Your task to perform on an android device: What's on my calendar tomorrow? Image 0: 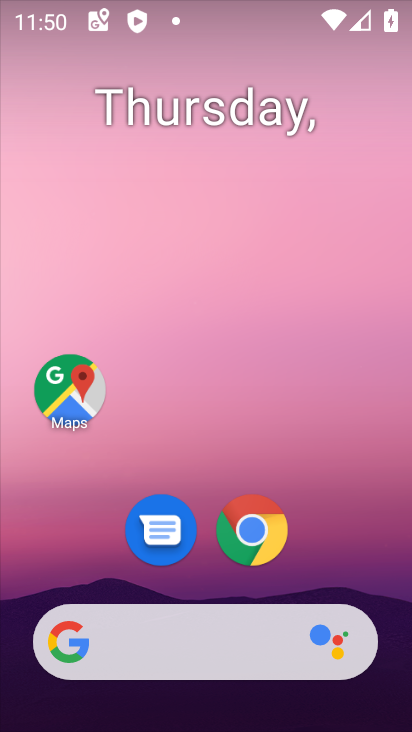
Step 0: drag from (341, 560) to (248, 61)
Your task to perform on an android device: What's on my calendar tomorrow? Image 1: 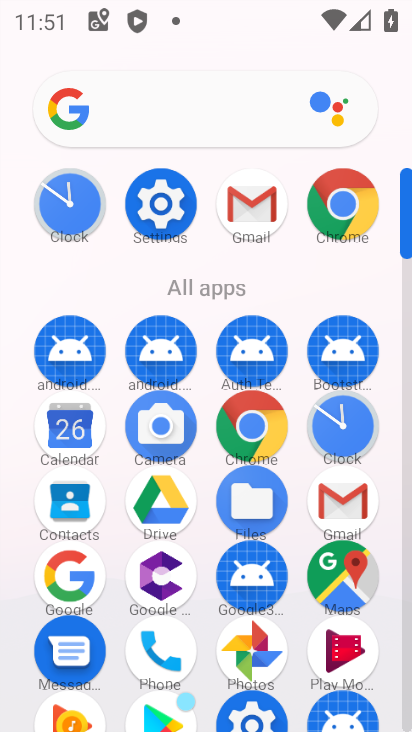
Step 1: click (71, 433)
Your task to perform on an android device: What's on my calendar tomorrow? Image 2: 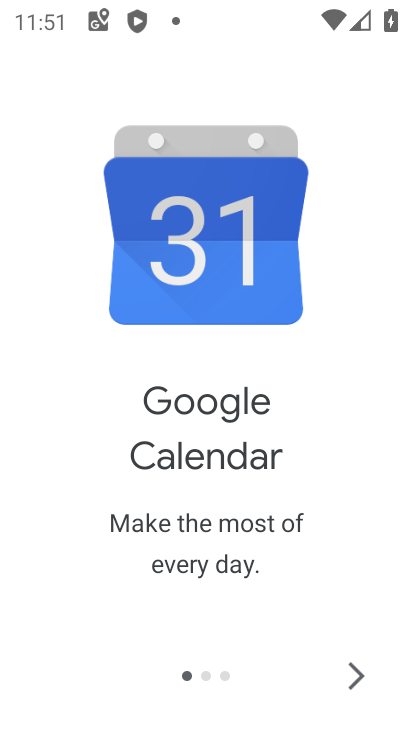
Step 2: click (358, 675)
Your task to perform on an android device: What's on my calendar tomorrow? Image 3: 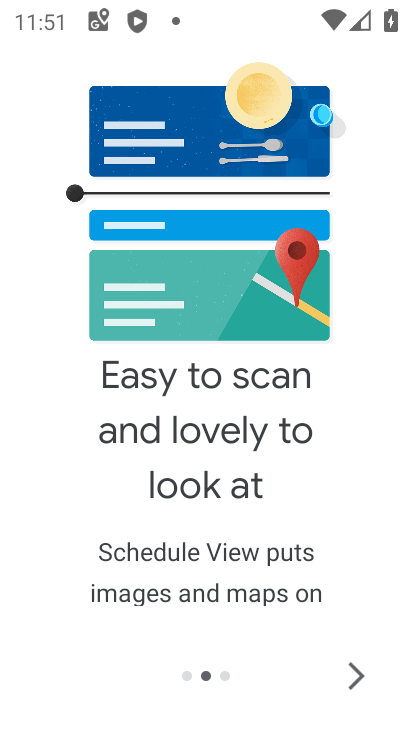
Step 3: click (358, 675)
Your task to perform on an android device: What's on my calendar tomorrow? Image 4: 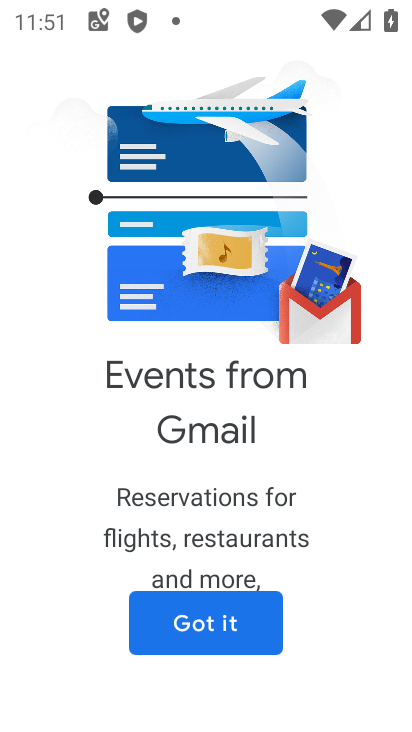
Step 4: click (206, 620)
Your task to perform on an android device: What's on my calendar tomorrow? Image 5: 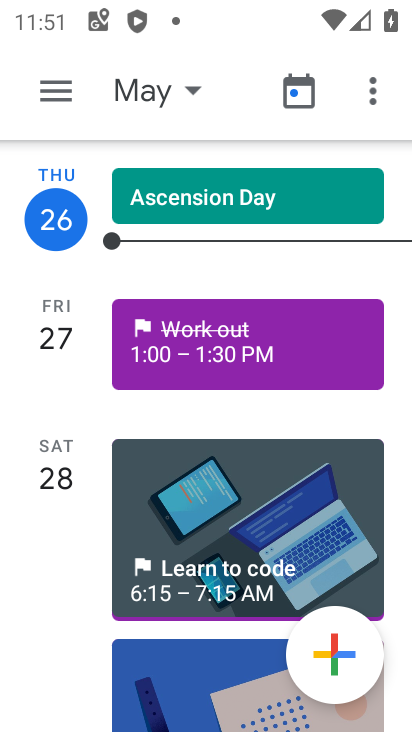
Step 5: click (192, 92)
Your task to perform on an android device: What's on my calendar tomorrow? Image 6: 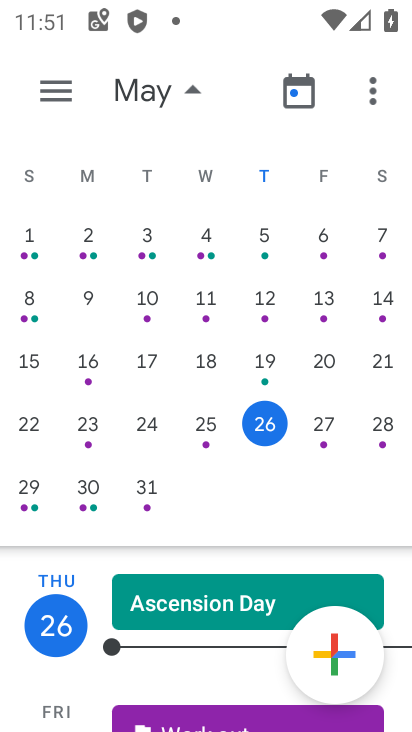
Step 6: click (321, 425)
Your task to perform on an android device: What's on my calendar tomorrow? Image 7: 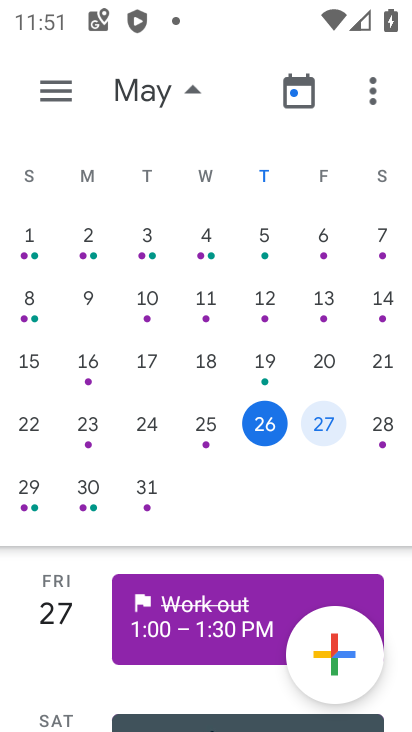
Step 7: click (45, 87)
Your task to perform on an android device: What's on my calendar tomorrow? Image 8: 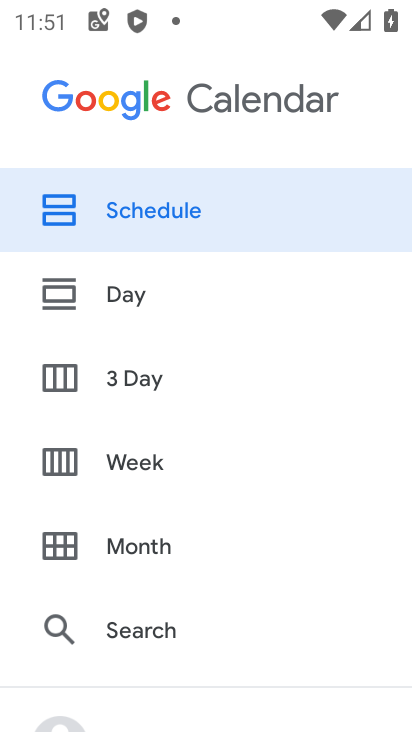
Step 8: click (116, 210)
Your task to perform on an android device: What's on my calendar tomorrow? Image 9: 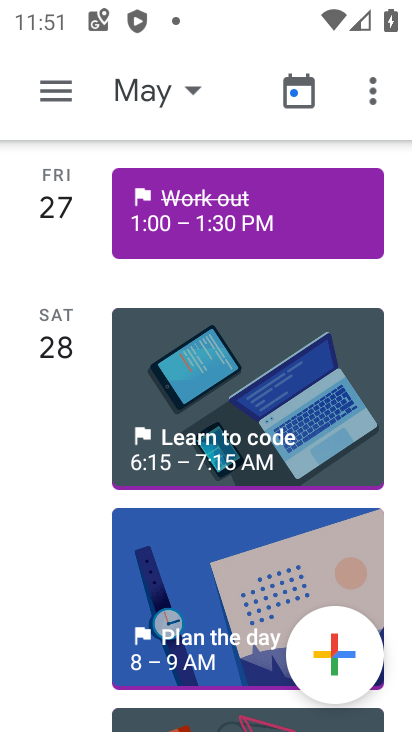
Step 9: task complete